Your task to perform on an android device: check google app version Image 0: 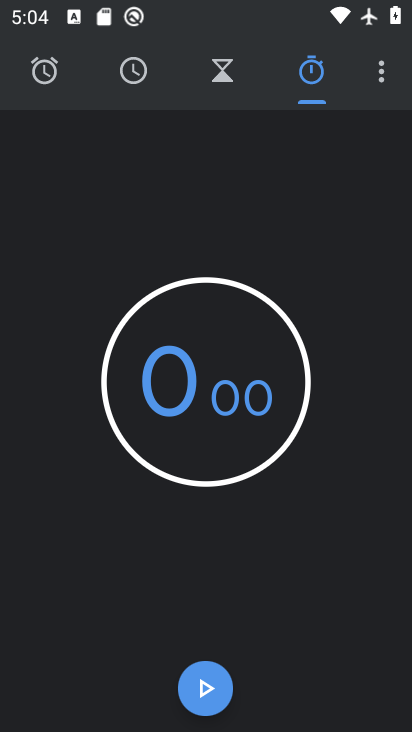
Step 0: press home button
Your task to perform on an android device: check google app version Image 1: 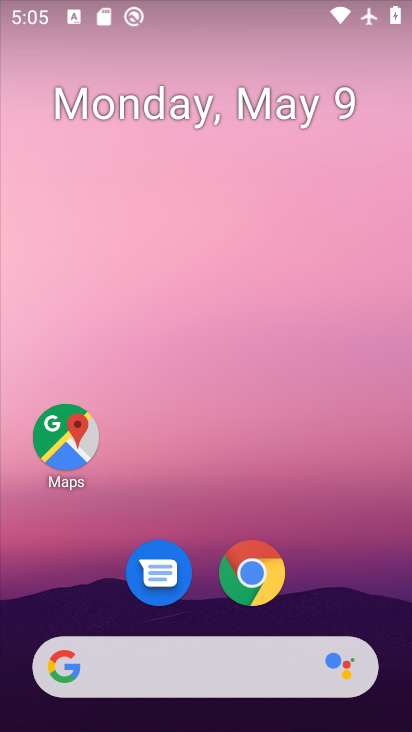
Step 1: click (249, 568)
Your task to perform on an android device: check google app version Image 2: 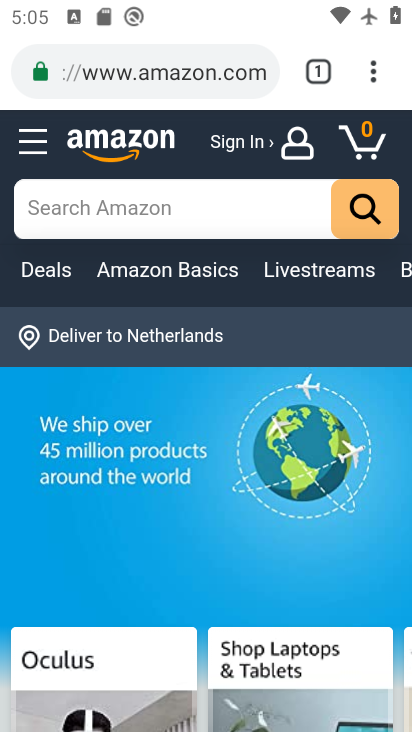
Step 2: click (374, 71)
Your task to perform on an android device: check google app version Image 3: 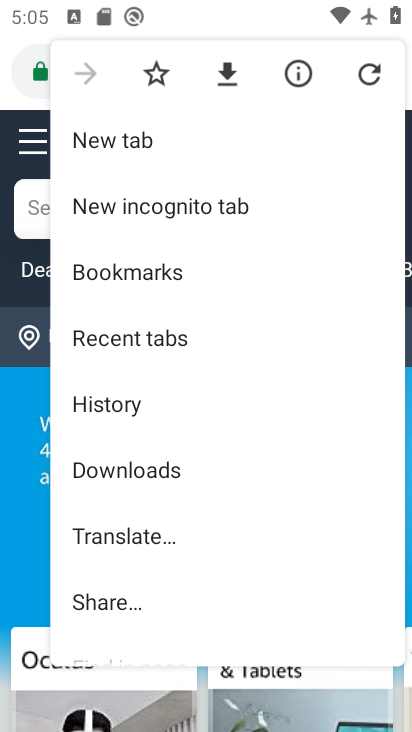
Step 3: drag from (197, 555) to (255, 207)
Your task to perform on an android device: check google app version Image 4: 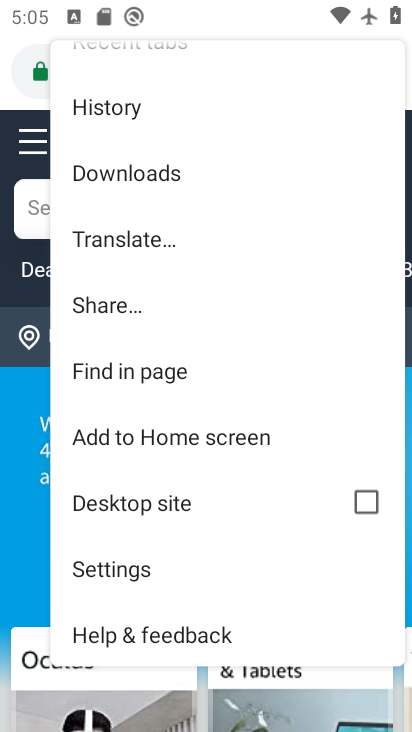
Step 4: click (120, 561)
Your task to perform on an android device: check google app version Image 5: 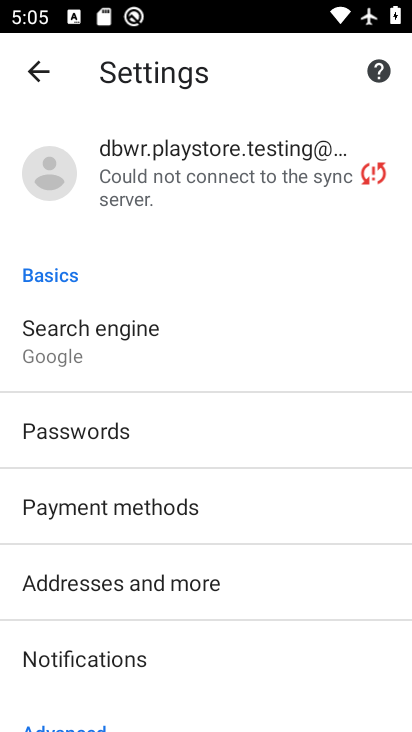
Step 5: drag from (241, 683) to (281, 201)
Your task to perform on an android device: check google app version Image 6: 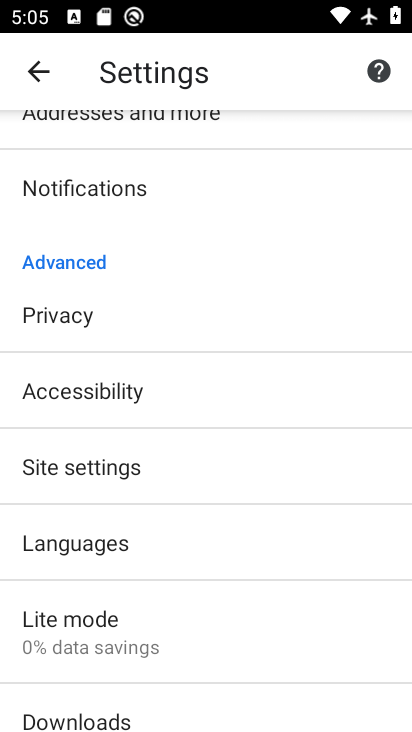
Step 6: drag from (194, 658) to (223, 207)
Your task to perform on an android device: check google app version Image 7: 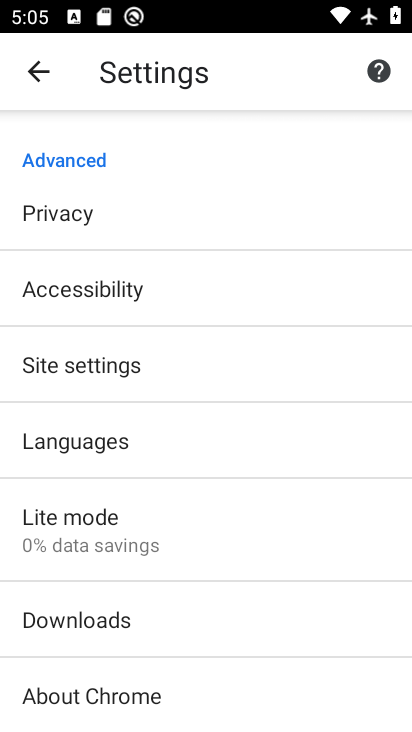
Step 7: click (141, 685)
Your task to perform on an android device: check google app version Image 8: 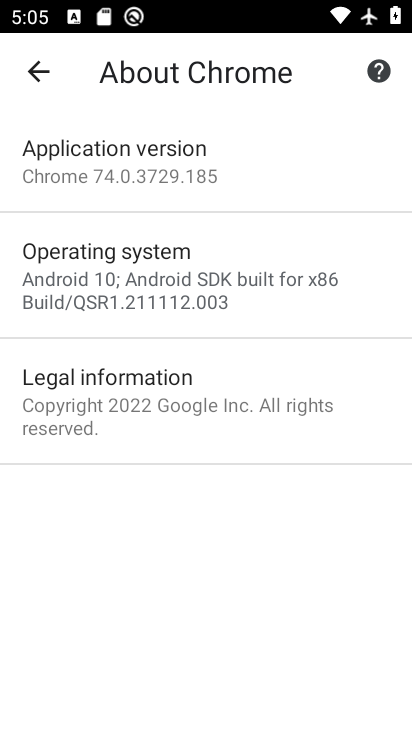
Step 8: click (117, 168)
Your task to perform on an android device: check google app version Image 9: 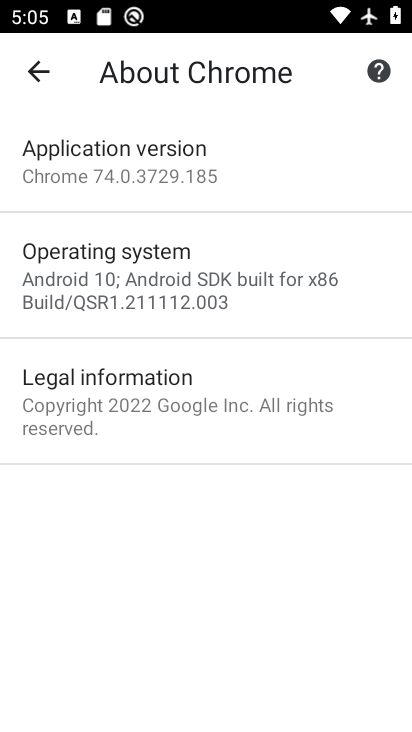
Step 9: task complete